Your task to perform on an android device: Open network settings Image 0: 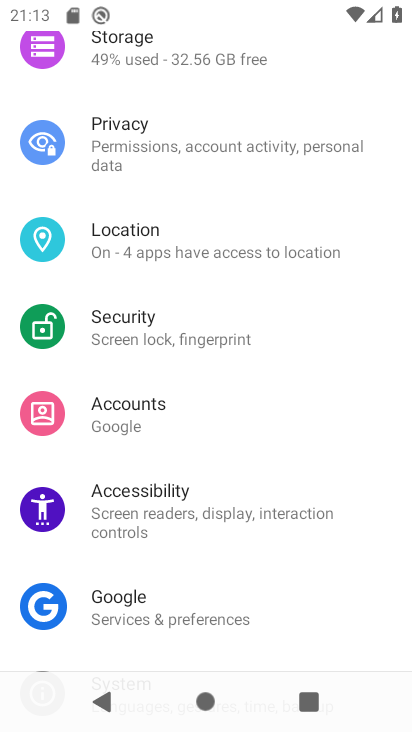
Step 0: drag from (227, 217) to (219, 619)
Your task to perform on an android device: Open network settings Image 1: 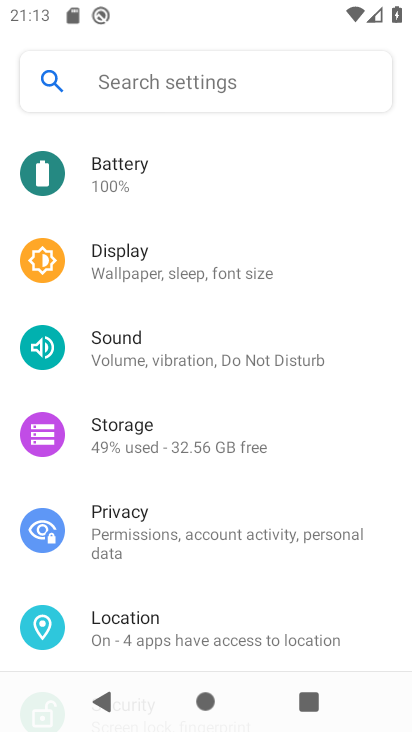
Step 1: drag from (219, 223) to (197, 565)
Your task to perform on an android device: Open network settings Image 2: 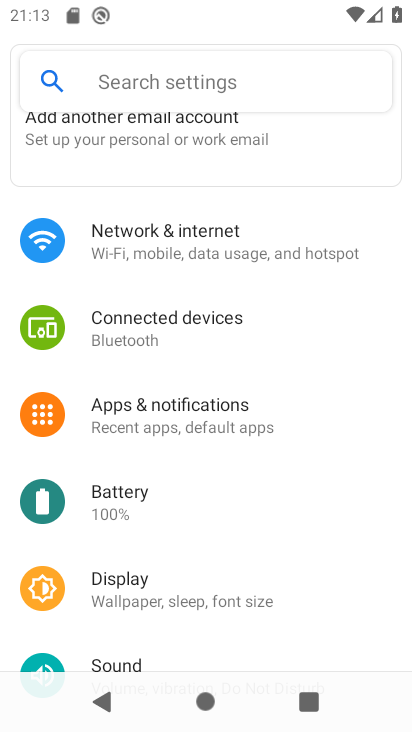
Step 2: click (238, 239)
Your task to perform on an android device: Open network settings Image 3: 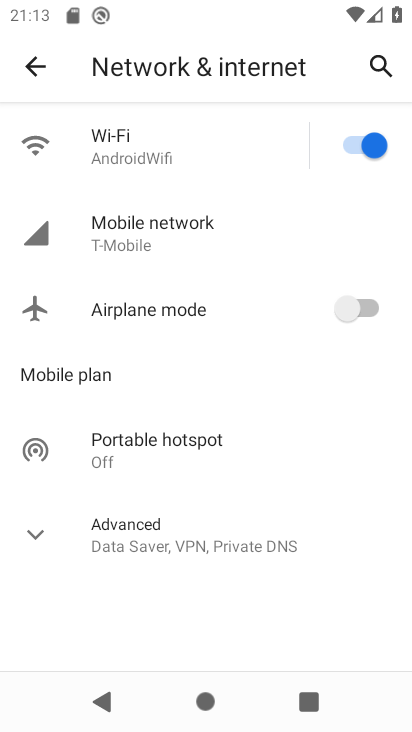
Step 3: task complete